Your task to perform on an android device: delete the emails in spam in the gmail app Image 0: 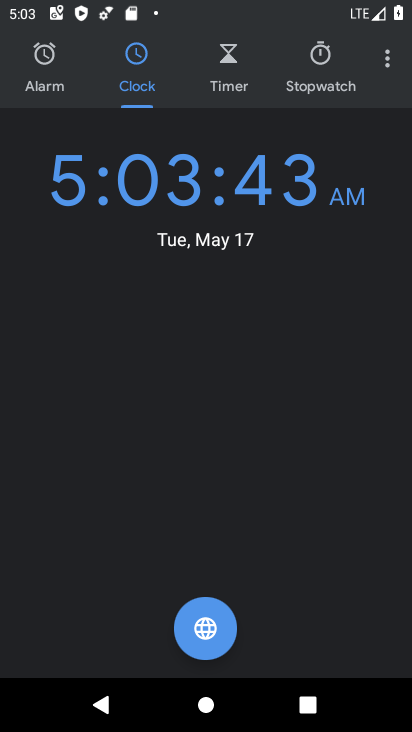
Step 0: press home button
Your task to perform on an android device: delete the emails in spam in the gmail app Image 1: 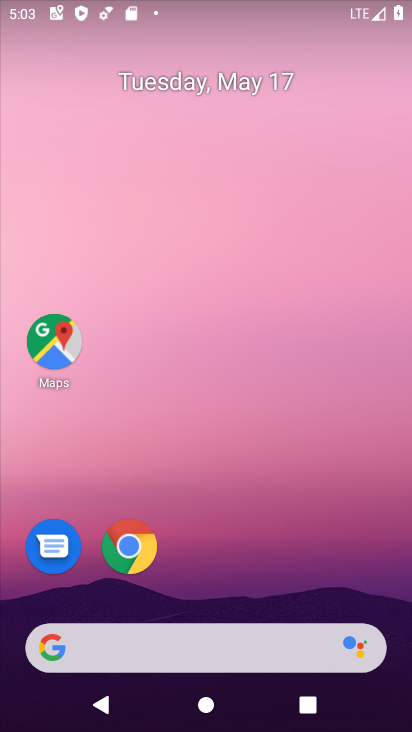
Step 1: drag from (245, 585) to (247, 235)
Your task to perform on an android device: delete the emails in spam in the gmail app Image 2: 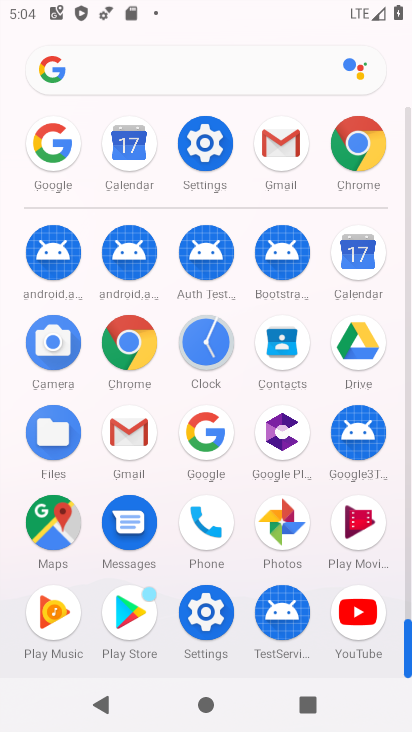
Step 2: click (294, 174)
Your task to perform on an android device: delete the emails in spam in the gmail app Image 3: 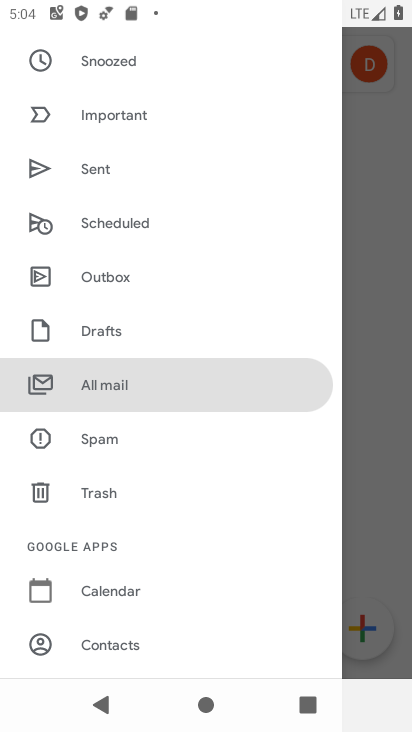
Step 3: click (121, 439)
Your task to perform on an android device: delete the emails in spam in the gmail app Image 4: 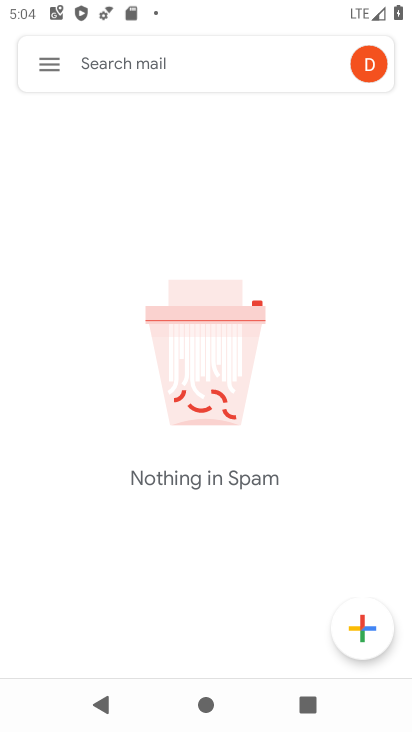
Step 4: task complete